Your task to perform on an android device: make emails show in primary in the gmail app Image 0: 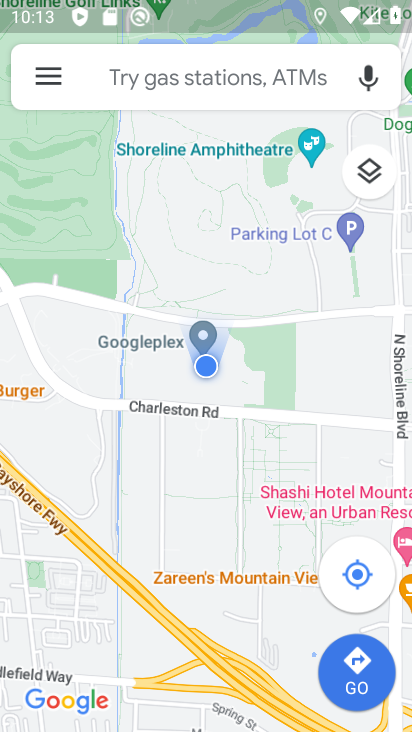
Step 0: press back button
Your task to perform on an android device: make emails show in primary in the gmail app Image 1: 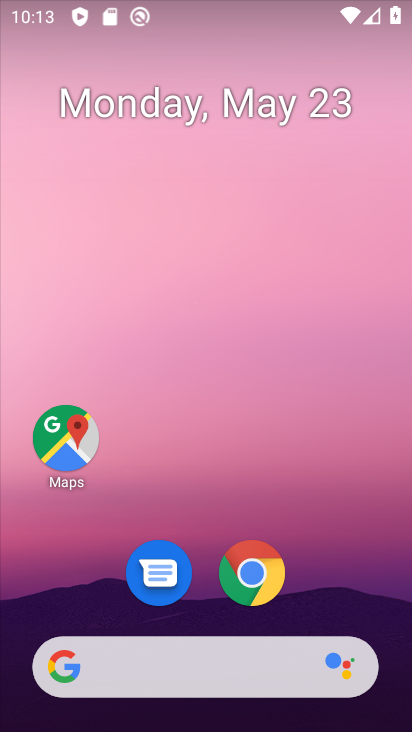
Step 1: drag from (322, 554) to (242, 12)
Your task to perform on an android device: make emails show in primary in the gmail app Image 2: 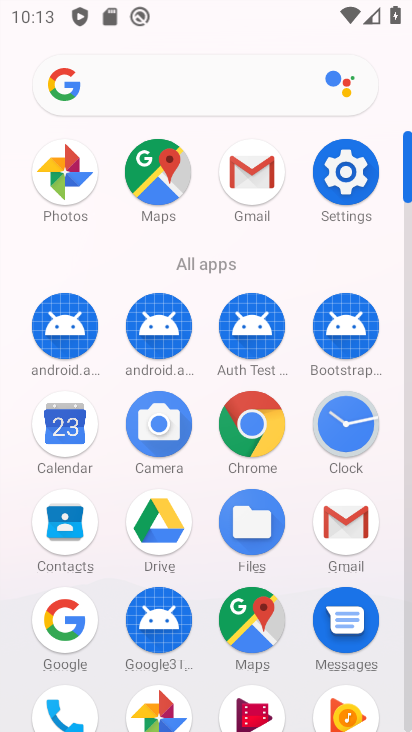
Step 2: drag from (11, 611) to (10, 272)
Your task to perform on an android device: make emails show in primary in the gmail app Image 3: 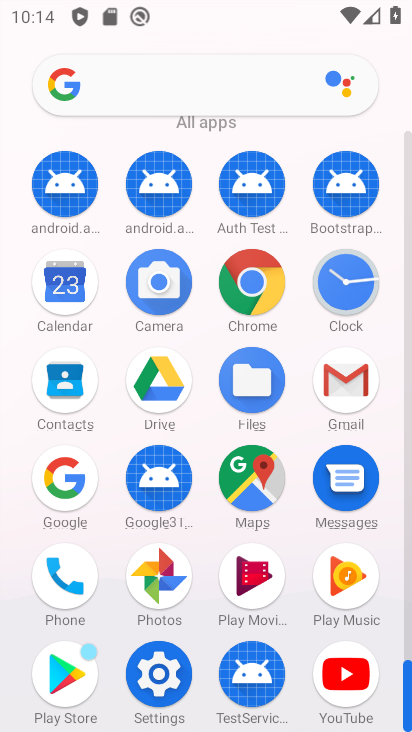
Step 3: click (341, 375)
Your task to perform on an android device: make emails show in primary in the gmail app Image 4: 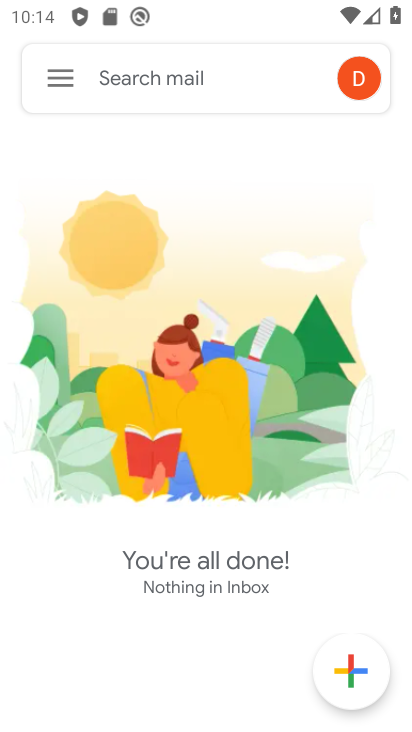
Step 4: click (70, 85)
Your task to perform on an android device: make emails show in primary in the gmail app Image 5: 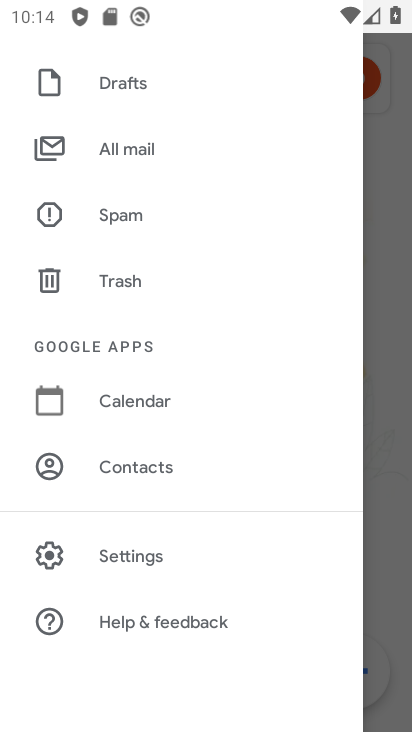
Step 5: drag from (236, 528) to (208, 122)
Your task to perform on an android device: make emails show in primary in the gmail app Image 6: 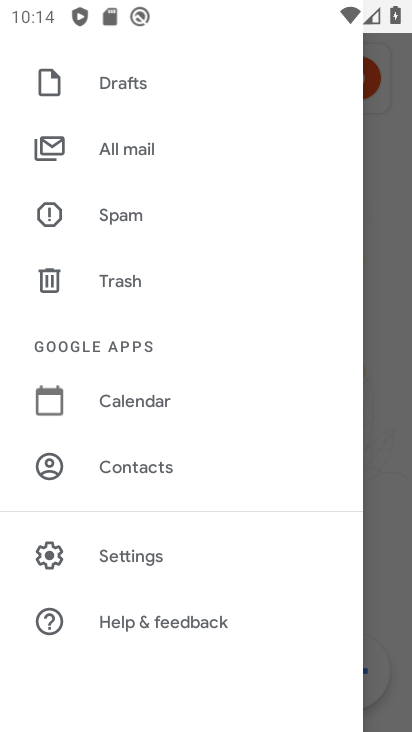
Step 6: click (130, 556)
Your task to perform on an android device: make emails show in primary in the gmail app Image 7: 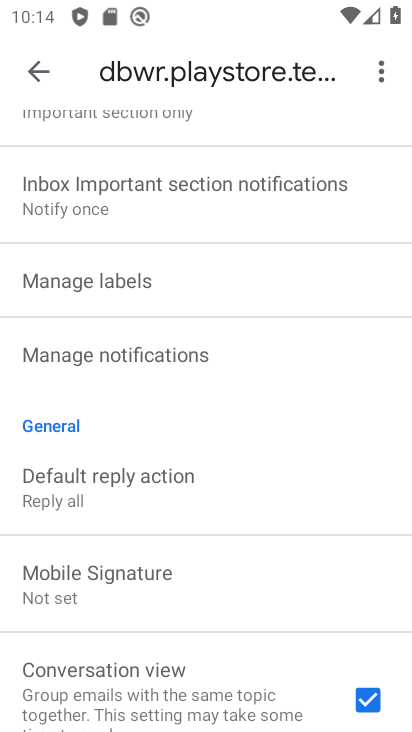
Step 7: drag from (176, 469) to (179, 173)
Your task to perform on an android device: make emails show in primary in the gmail app Image 8: 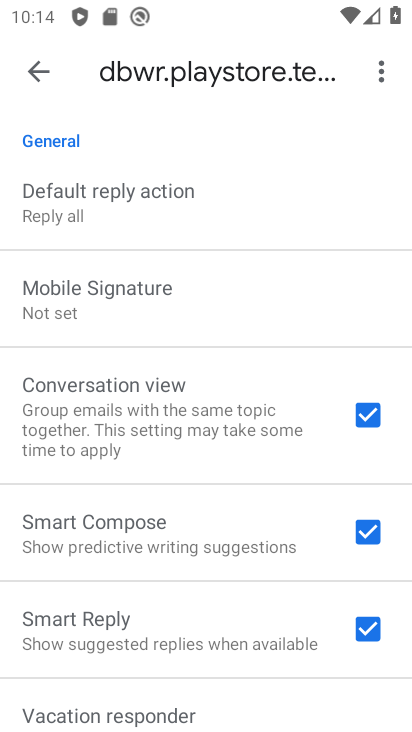
Step 8: drag from (179, 215) to (174, 567)
Your task to perform on an android device: make emails show in primary in the gmail app Image 9: 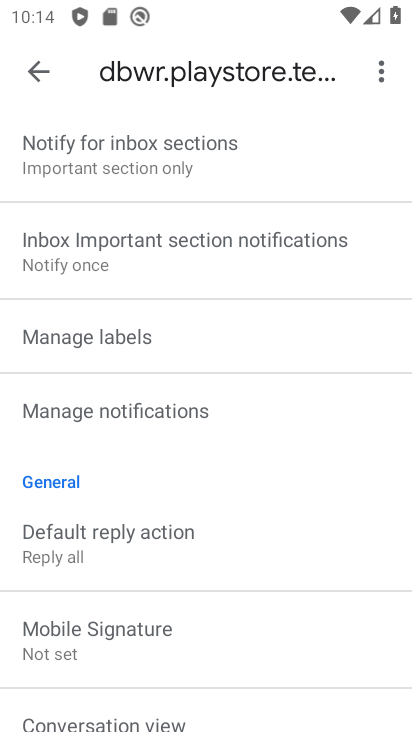
Step 9: drag from (229, 295) to (224, 553)
Your task to perform on an android device: make emails show in primary in the gmail app Image 10: 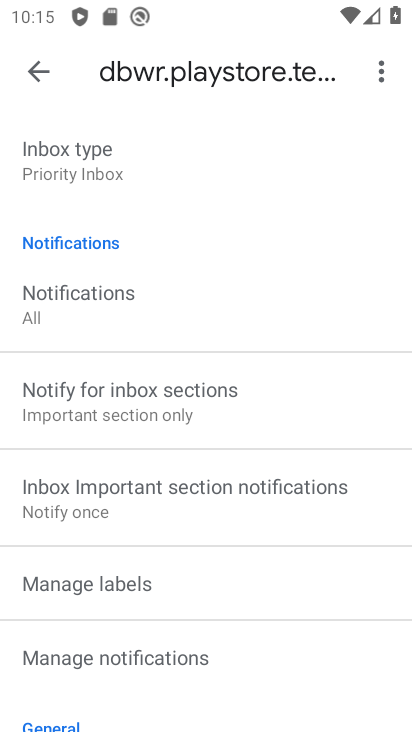
Step 10: click (109, 143)
Your task to perform on an android device: make emails show in primary in the gmail app Image 11: 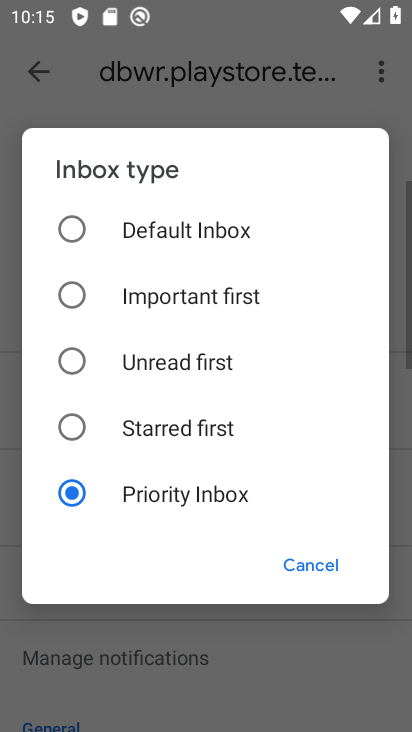
Step 11: click (188, 204)
Your task to perform on an android device: make emails show in primary in the gmail app Image 12: 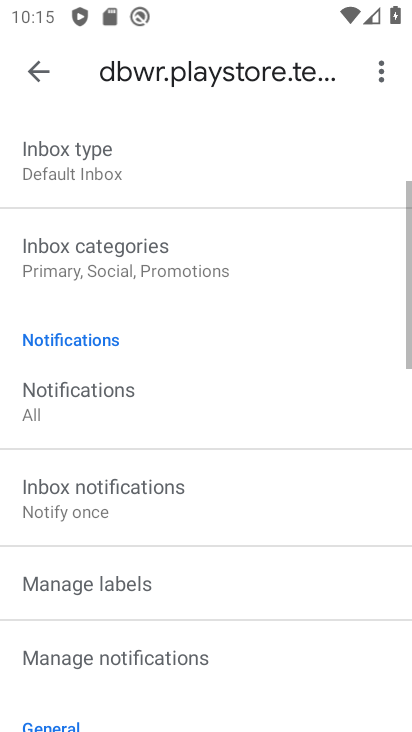
Step 12: click (121, 266)
Your task to perform on an android device: make emails show in primary in the gmail app Image 13: 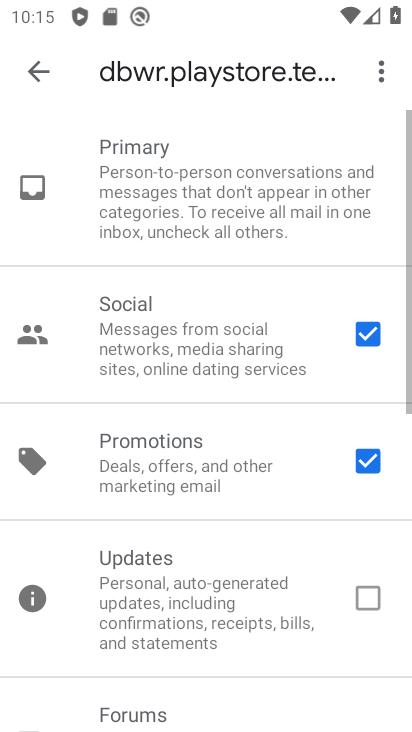
Step 13: click (356, 326)
Your task to perform on an android device: make emails show in primary in the gmail app Image 14: 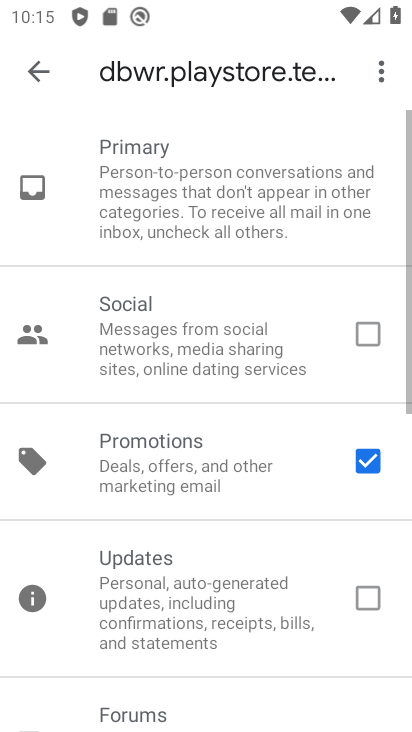
Step 14: click (371, 466)
Your task to perform on an android device: make emails show in primary in the gmail app Image 15: 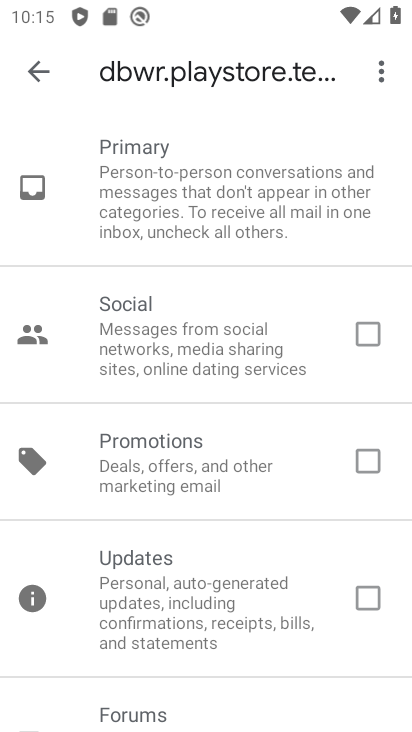
Step 15: task complete